Your task to perform on an android device: install app "Etsy: Buy & Sell Unique Items" Image 0: 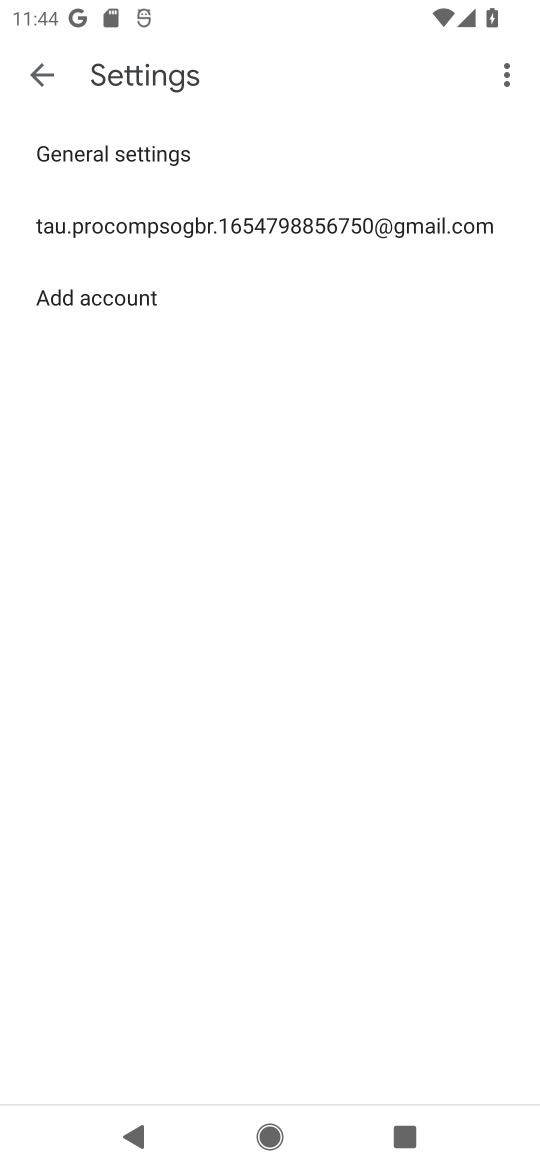
Step 0: press back button
Your task to perform on an android device: install app "Etsy: Buy & Sell Unique Items" Image 1: 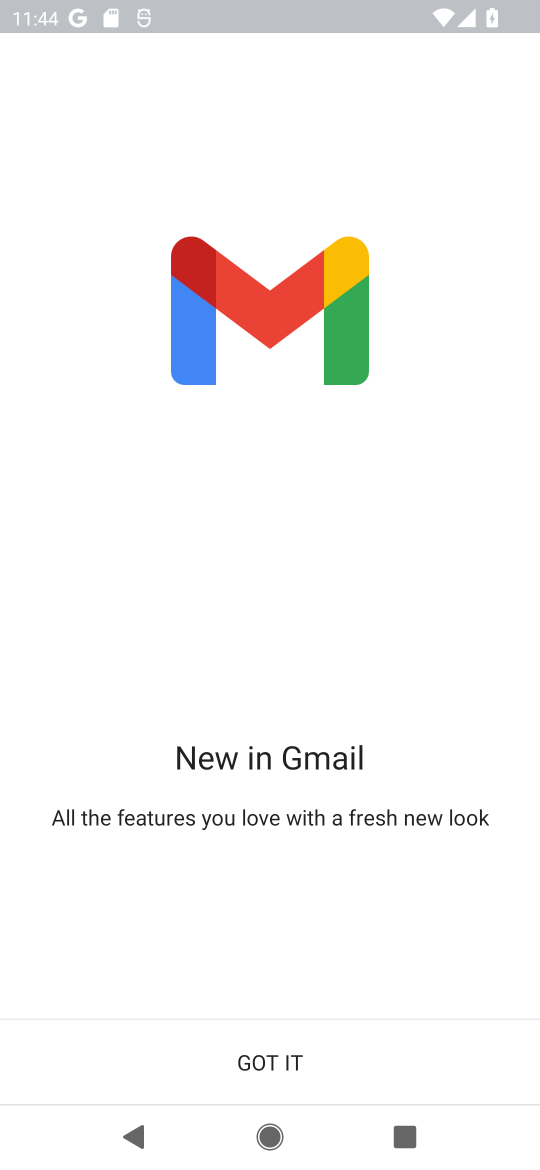
Step 1: press back button
Your task to perform on an android device: install app "Etsy: Buy & Sell Unique Items" Image 2: 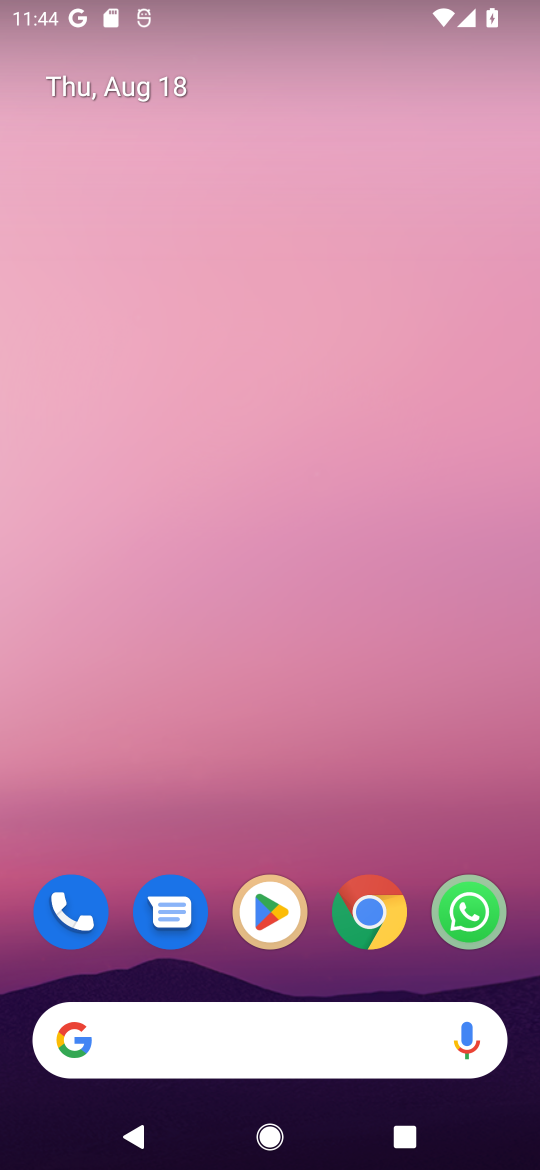
Step 2: click (278, 903)
Your task to perform on an android device: install app "Etsy: Buy & Sell Unique Items" Image 3: 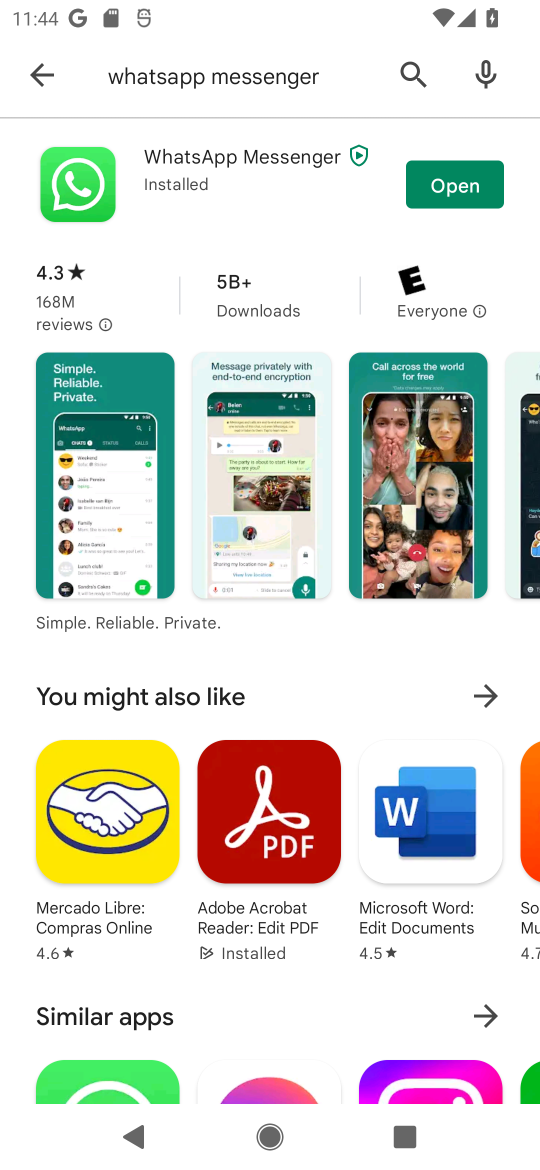
Step 3: click (408, 88)
Your task to perform on an android device: install app "Etsy: Buy & Sell Unique Items" Image 4: 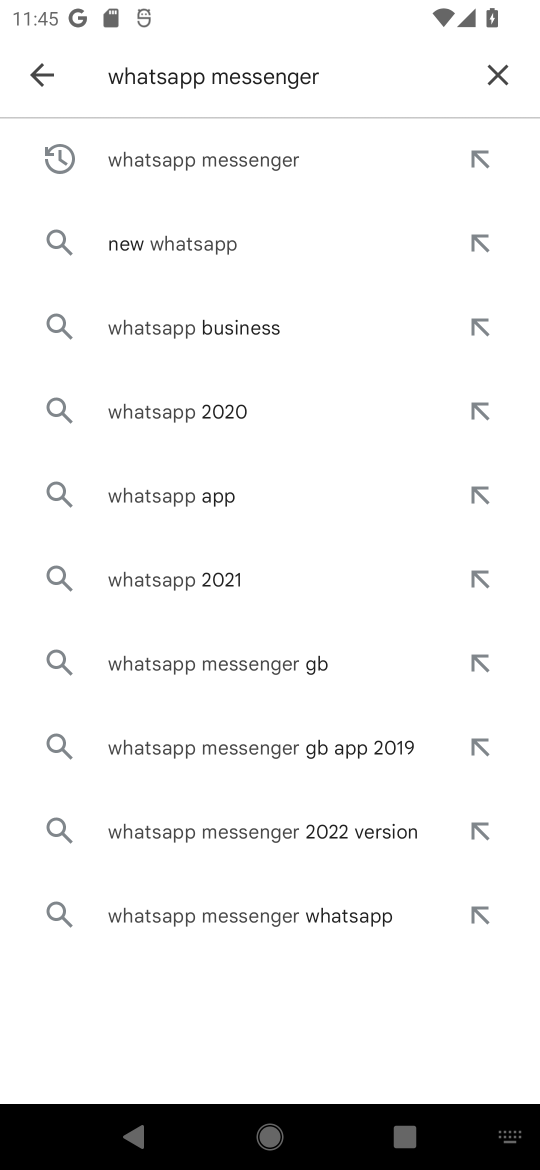
Step 4: click (518, 75)
Your task to perform on an android device: install app "Etsy: Buy & Sell Unique Items" Image 5: 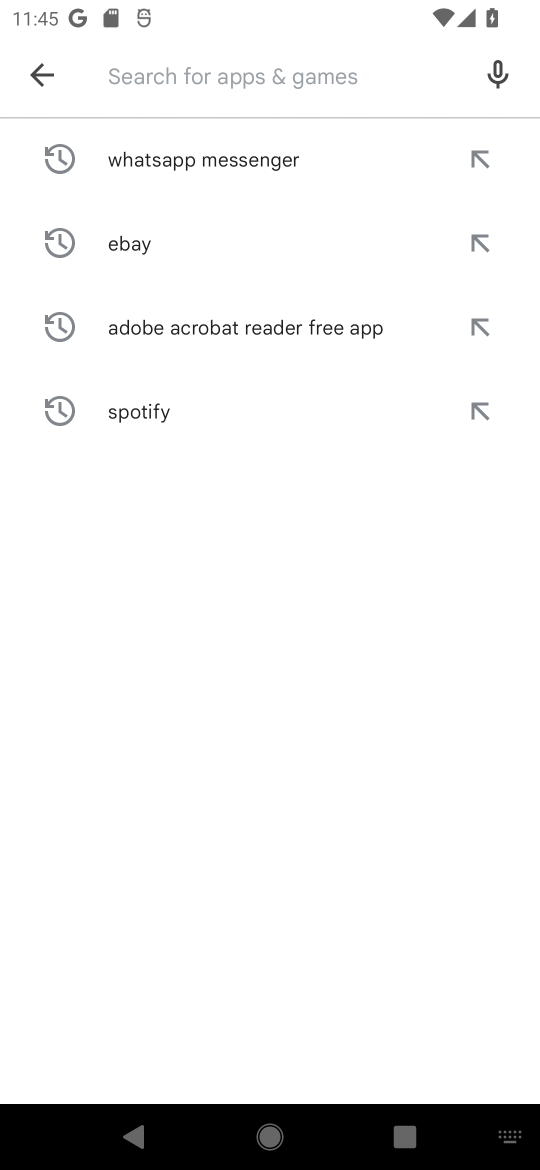
Step 5: type "etsy"
Your task to perform on an android device: install app "Etsy: Buy & Sell Unique Items" Image 6: 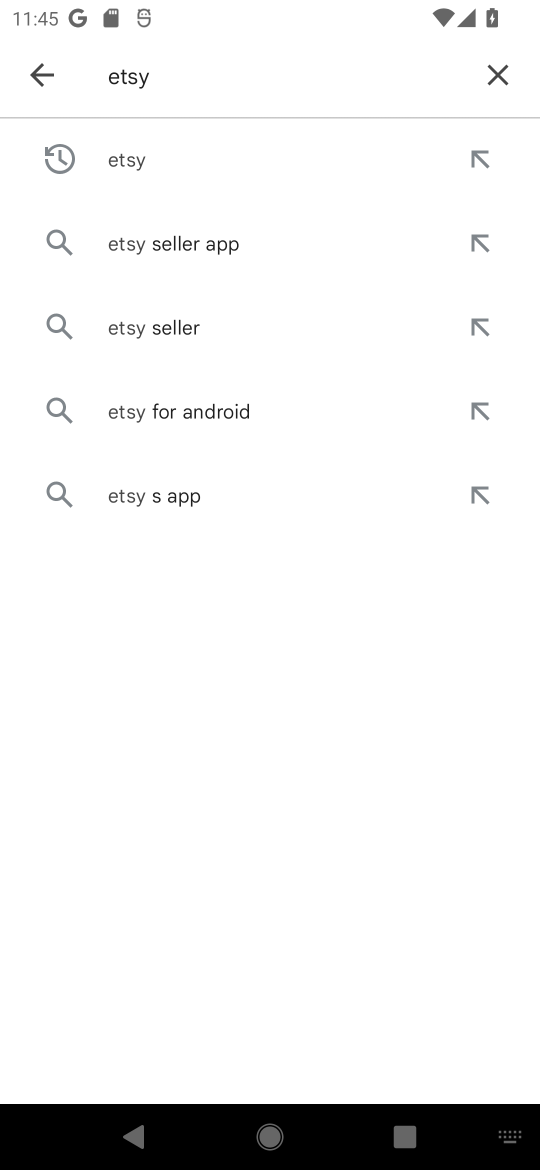
Step 6: click (190, 169)
Your task to perform on an android device: install app "Etsy: Buy & Sell Unique Items" Image 7: 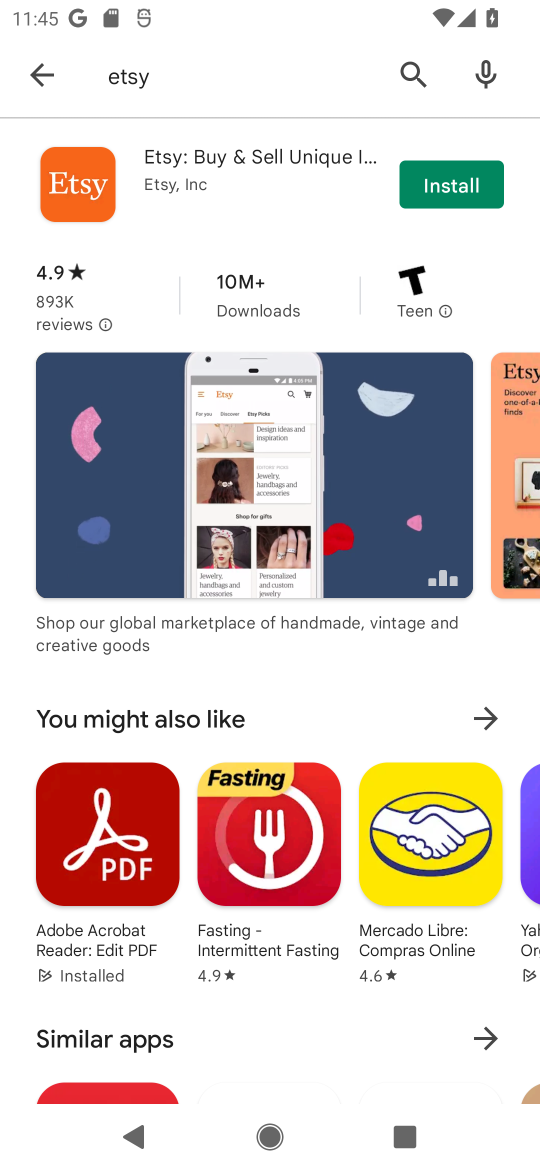
Step 7: click (456, 177)
Your task to perform on an android device: install app "Etsy: Buy & Sell Unique Items" Image 8: 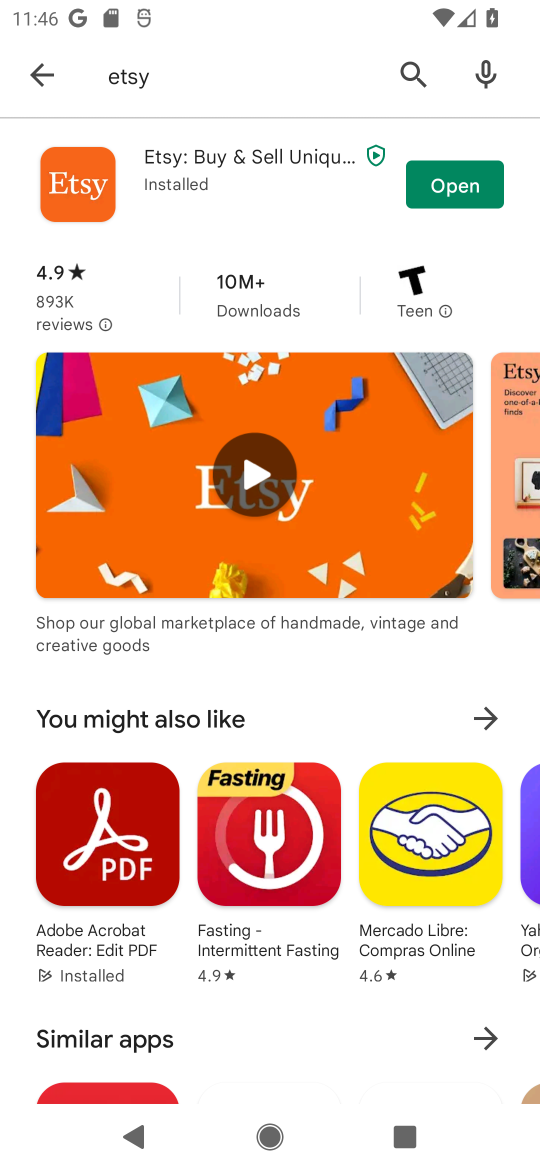
Step 8: task complete